Your task to perform on an android device: turn off translation in the chrome app Image 0: 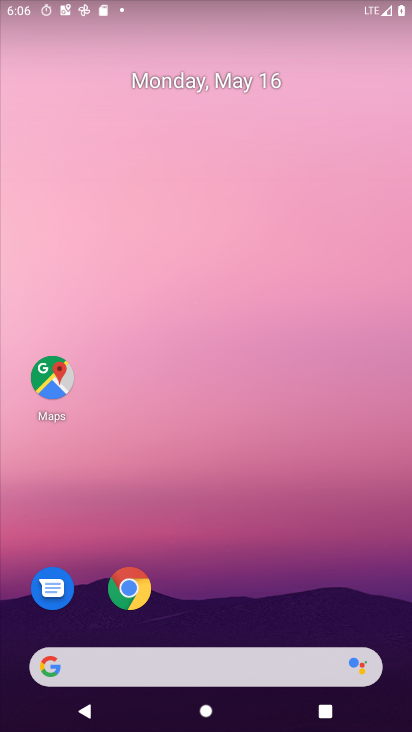
Step 0: click (131, 580)
Your task to perform on an android device: turn off translation in the chrome app Image 1: 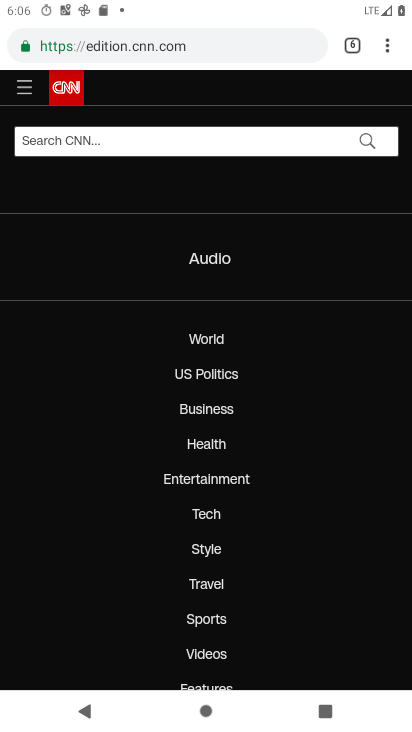
Step 1: click (383, 46)
Your task to perform on an android device: turn off translation in the chrome app Image 2: 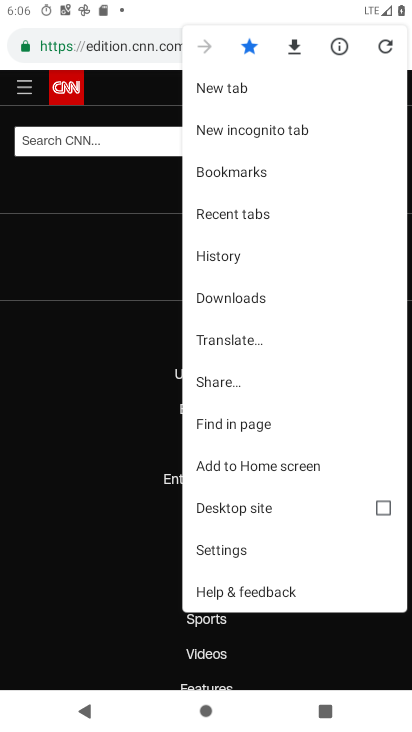
Step 2: click (273, 547)
Your task to perform on an android device: turn off translation in the chrome app Image 3: 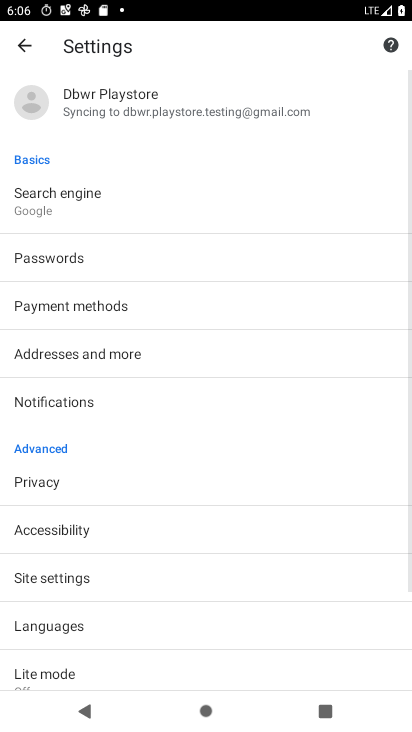
Step 3: click (100, 611)
Your task to perform on an android device: turn off translation in the chrome app Image 4: 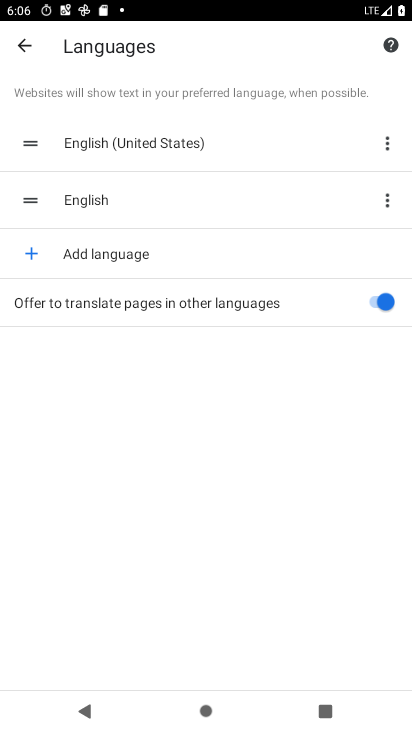
Step 4: click (387, 301)
Your task to perform on an android device: turn off translation in the chrome app Image 5: 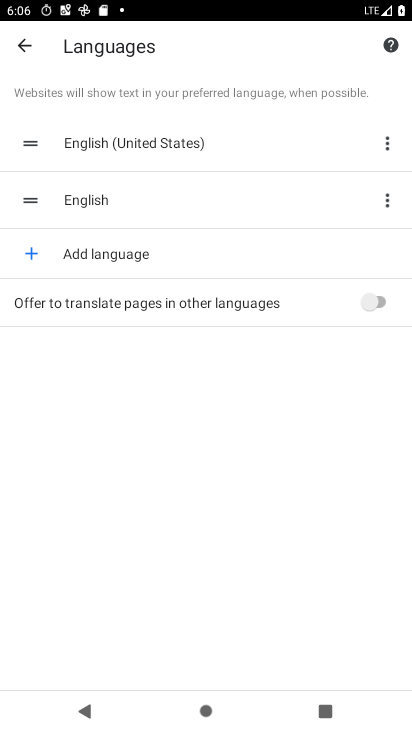
Step 5: task complete